Your task to perform on an android device: Go to display settings Image 0: 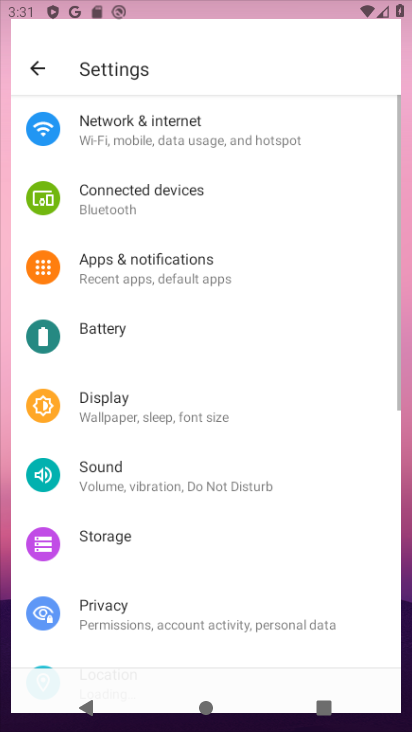
Step 0: press home button
Your task to perform on an android device: Go to display settings Image 1: 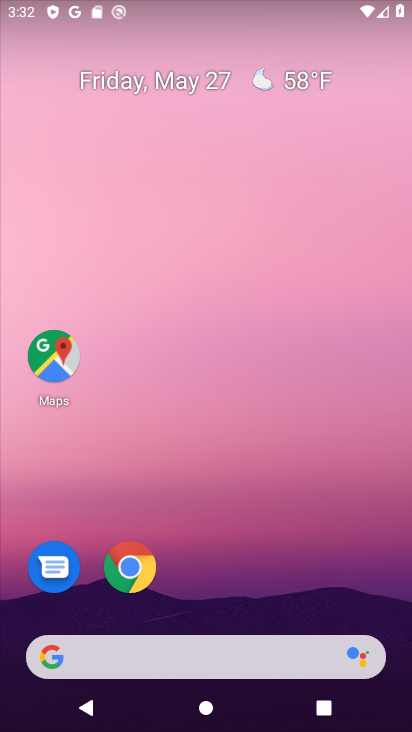
Step 1: drag from (226, 624) to (258, 63)
Your task to perform on an android device: Go to display settings Image 2: 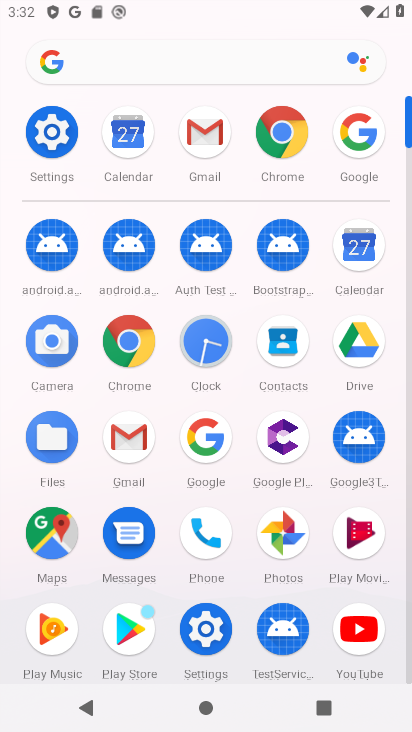
Step 2: click (48, 123)
Your task to perform on an android device: Go to display settings Image 3: 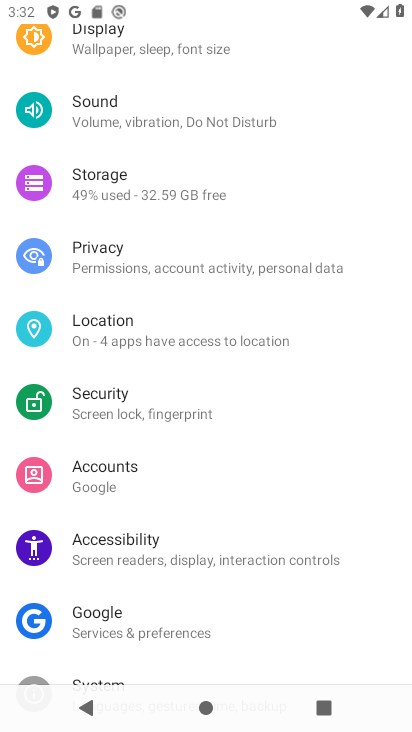
Step 3: click (134, 36)
Your task to perform on an android device: Go to display settings Image 4: 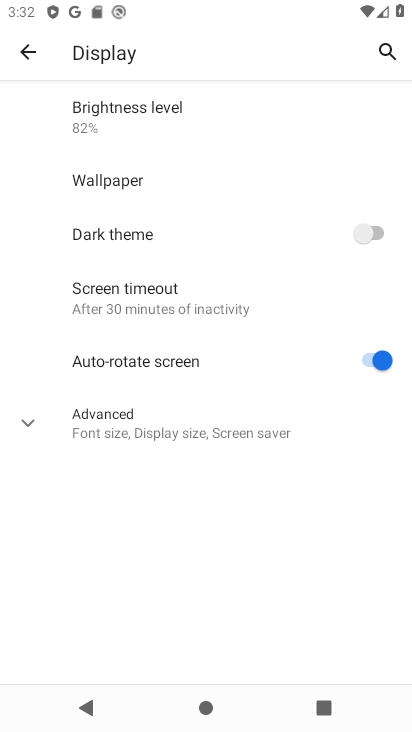
Step 4: click (30, 417)
Your task to perform on an android device: Go to display settings Image 5: 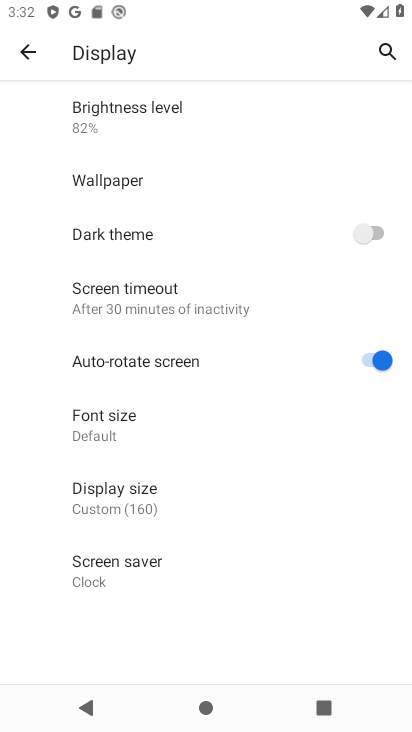
Step 5: task complete